Your task to perform on an android device: open chrome privacy settings Image 0: 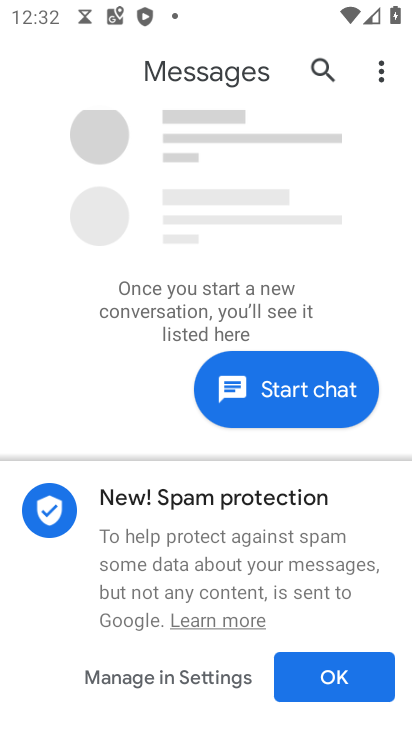
Step 0: press home button
Your task to perform on an android device: open chrome privacy settings Image 1: 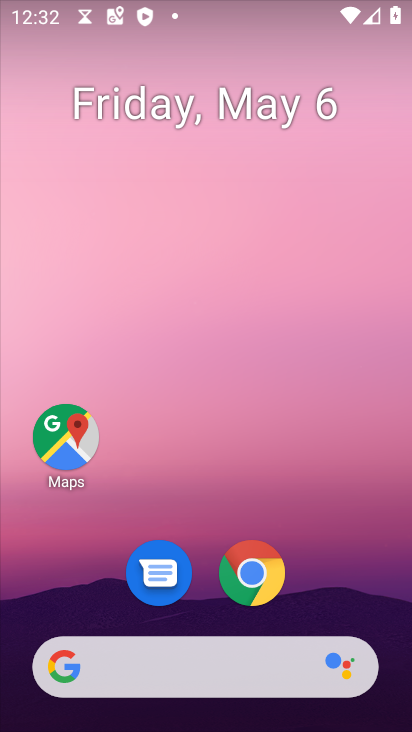
Step 1: drag from (308, 595) to (343, 185)
Your task to perform on an android device: open chrome privacy settings Image 2: 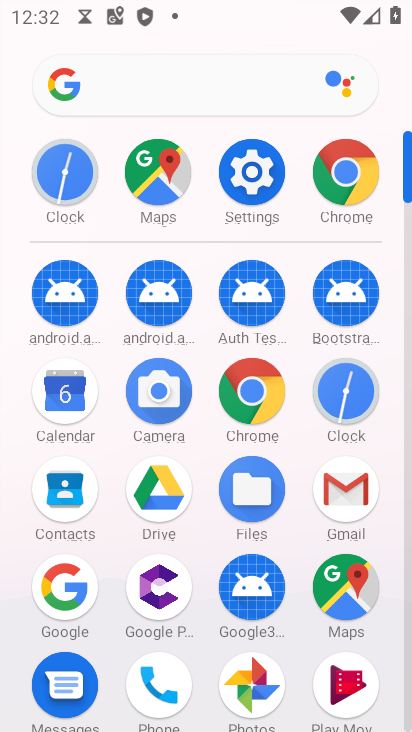
Step 2: click (248, 387)
Your task to perform on an android device: open chrome privacy settings Image 3: 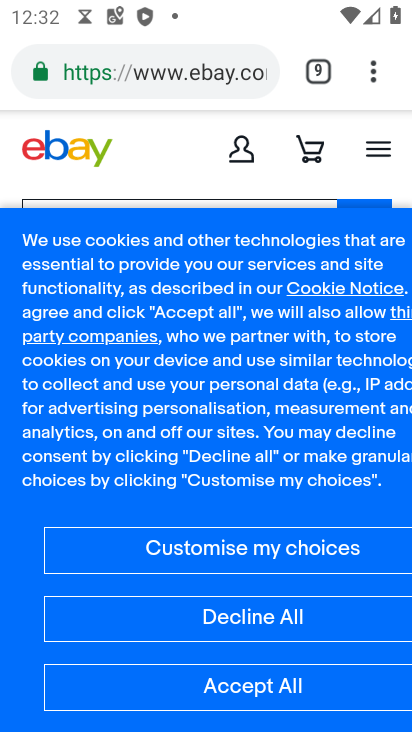
Step 3: click (359, 71)
Your task to perform on an android device: open chrome privacy settings Image 4: 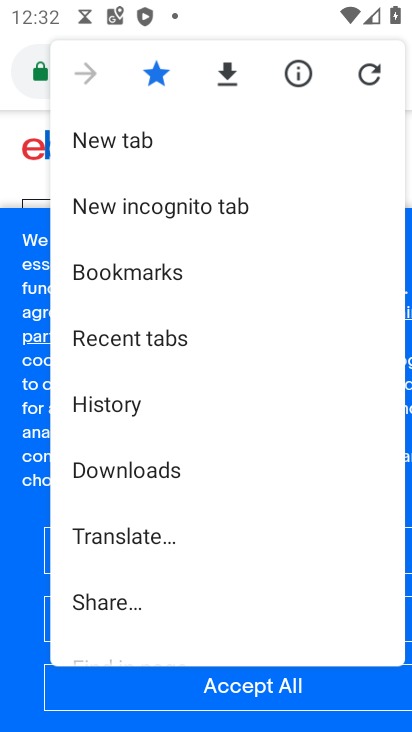
Step 4: drag from (189, 601) to (274, 263)
Your task to perform on an android device: open chrome privacy settings Image 5: 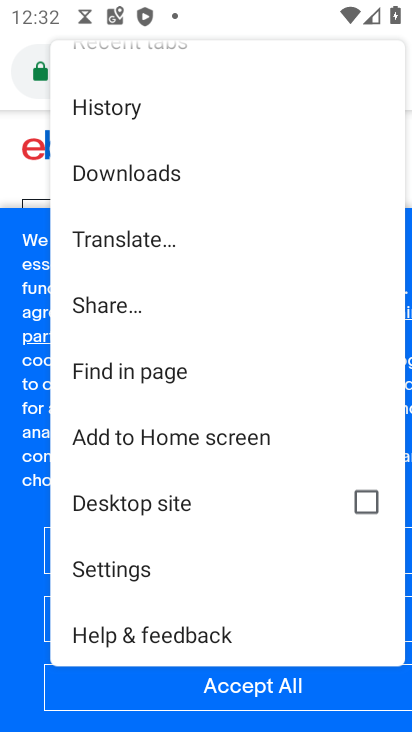
Step 5: click (151, 573)
Your task to perform on an android device: open chrome privacy settings Image 6: 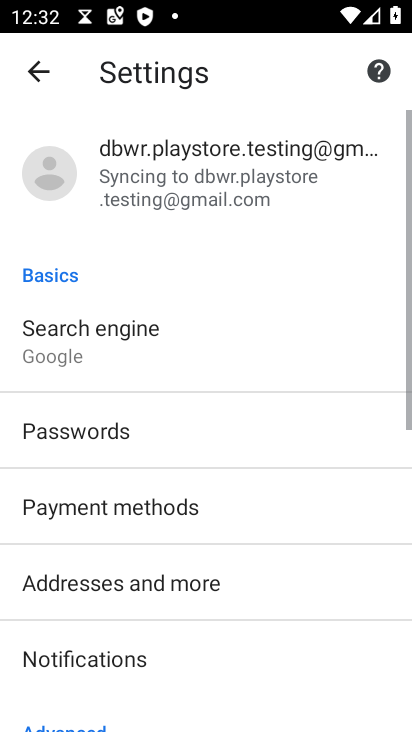
Step 6: drag from (163, 628) to (251, 278)
Your task to perform on an android device: open chrome privacy settings Image 7: 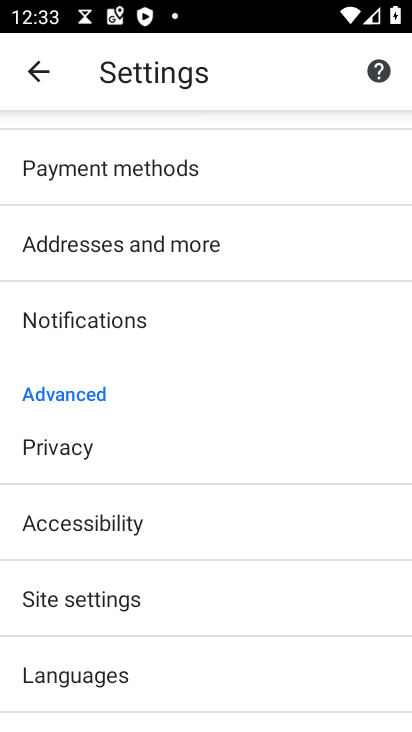
Step 7: click (91, 445)
Your task to perform on an android device: open chrome privacy settings Image 8: 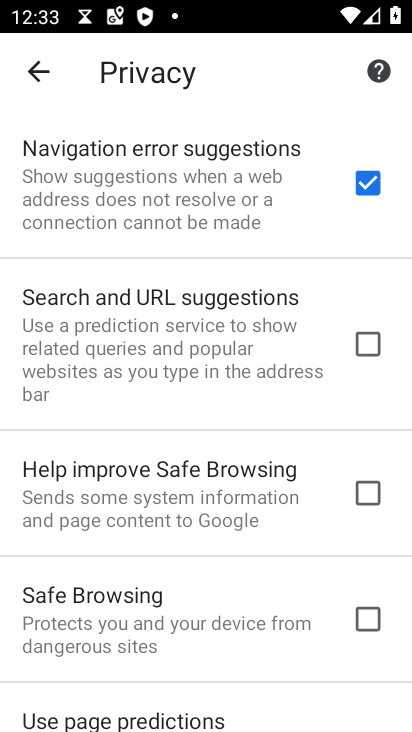
Step 8: task complete